Your task to perform on an android device: check android version Image 0: 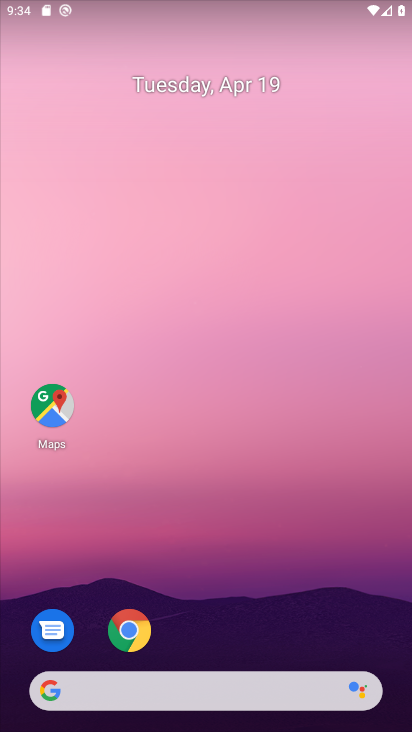
Step 0: drag from (204, 545) to (204, 94)
Your task to perform on an android device: check android version Image 1: 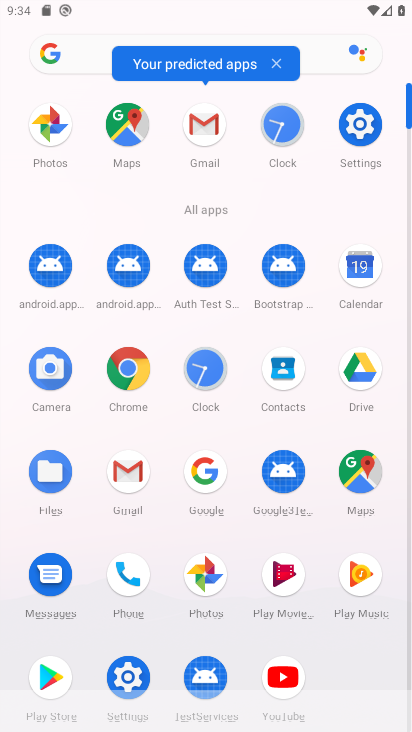
Step 1: click (347, 122)
Your task to perform on an android device: check android version Image 2: 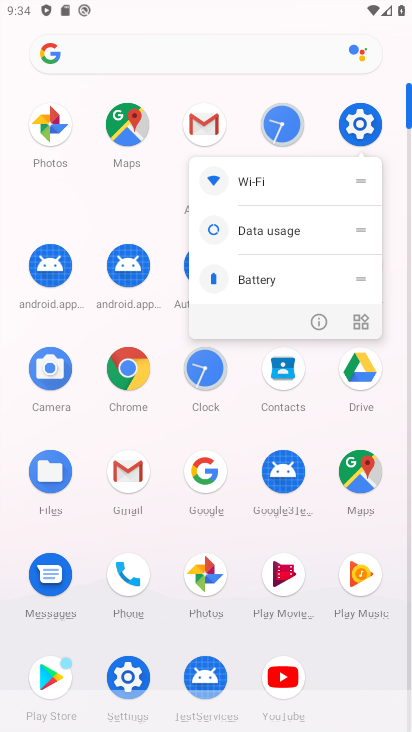
Step 2: click (359, 132)
Your task to perform on an android device: check android version Image 3: 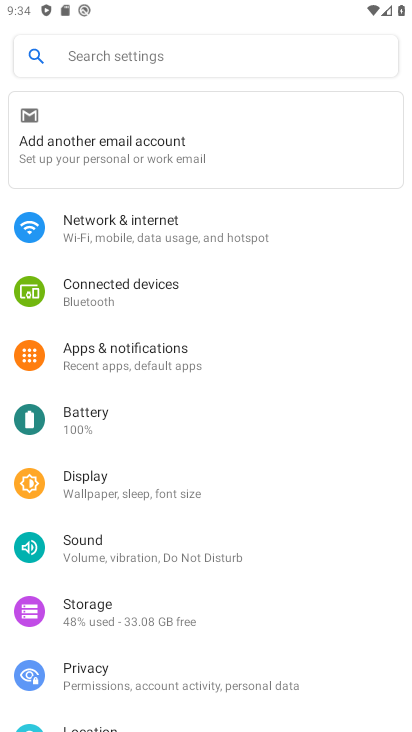
Step 3: drag from (174, 670) to (226, 149)
Your task to perform on an android device: check android version Image 4: 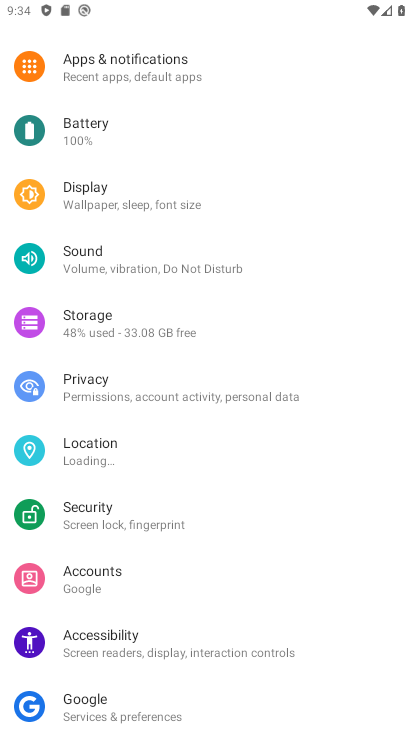
Step 4: drag from (185, 638) to (233, 131)
Your task to perform on an android device: check android version Image 5: 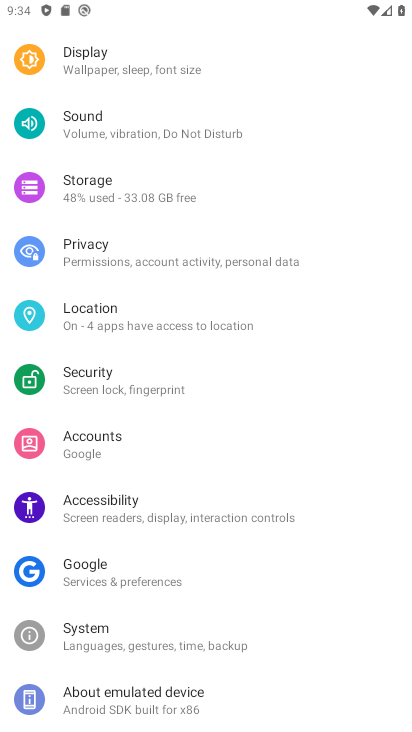
Step 5: drag from (192, 661) to (199, 159)
Your task to perform on an android device: check android version Image 6: 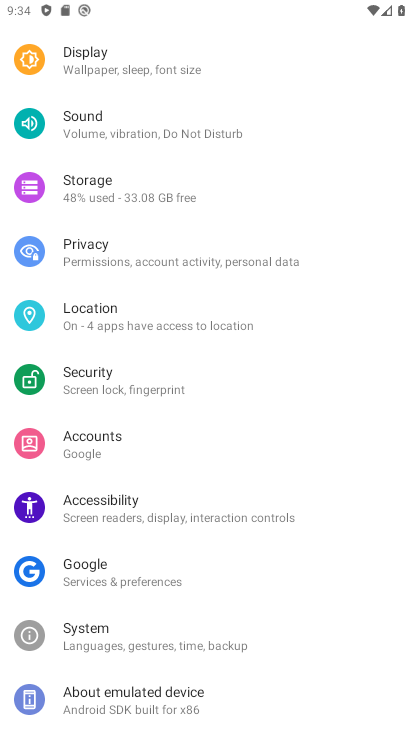
Step 6: click (160, 686)
Your task to perform on an android device: check android version Image 7: 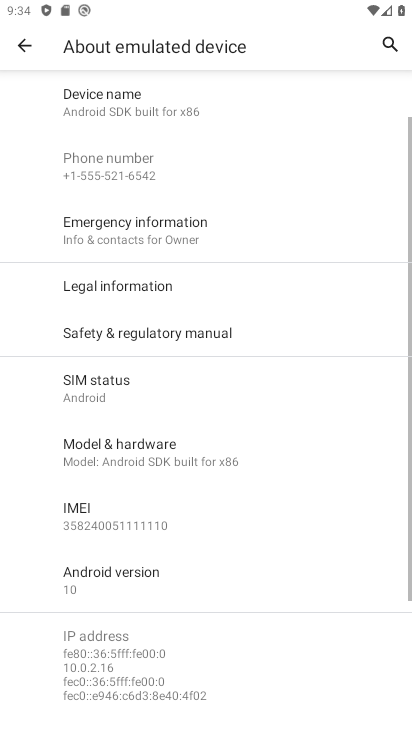
Step 7: click (188, 569)
Your task to perform on an android device: check android version Image 8: 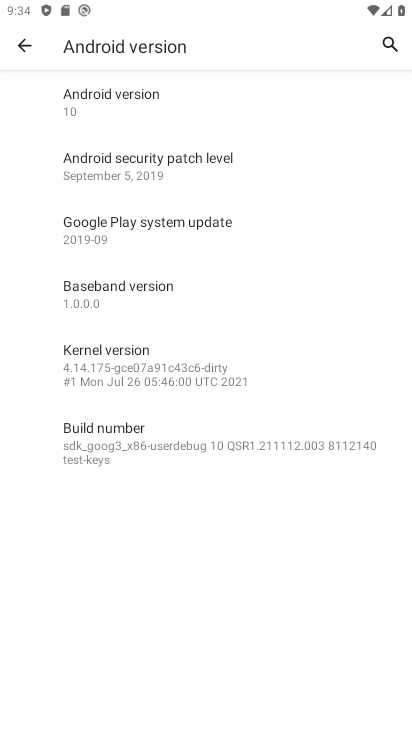
Step 8: click (166, 109)
Your task to perform on an android device: check android version Image 9: 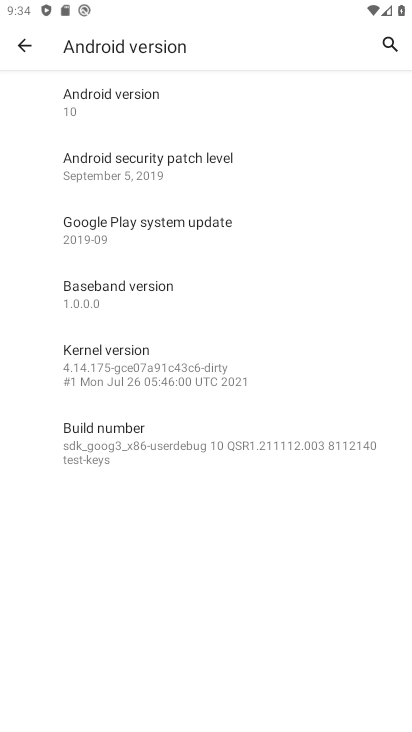
Step 9: task complete